Your task to perform on an android device: Open eBay Image 0: 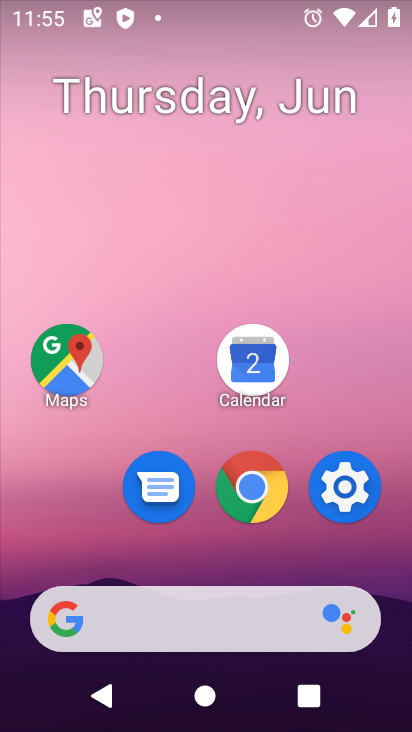
Step 0: drag from (275, 646) to (256, 0)
Your task to perform on an android device: Open eBay Image 1: 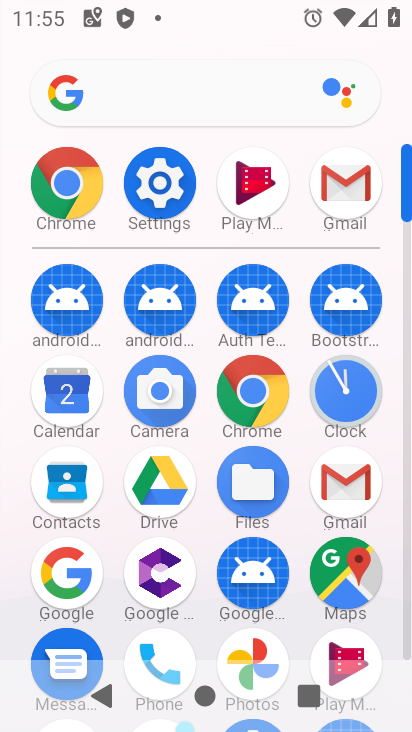
Step 1: click (78, 205)
Your task to perform on an android device: Open eBay Image 2: 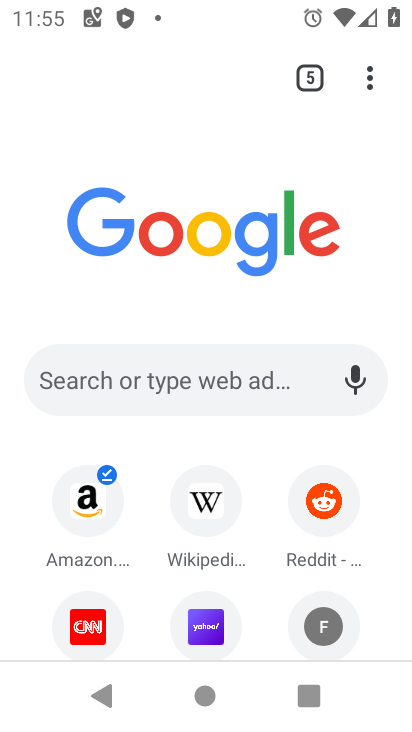
Step 2: click (148, 393)
Your task to perform on an android device: Open eBay Image 3: 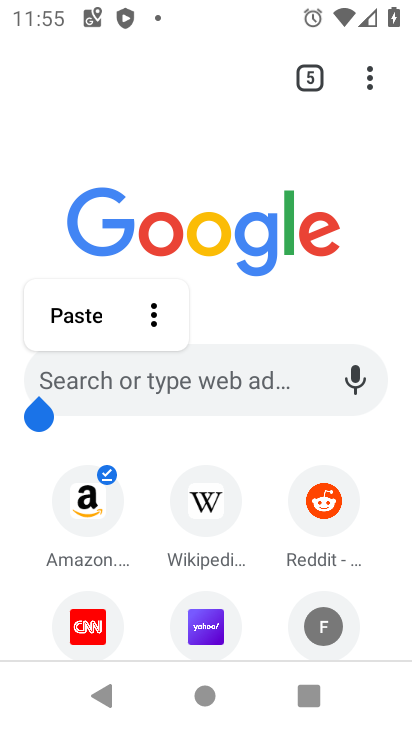
Step 3: click (160, 350)
Your task to perform on an android device: Open eBay Image 4: 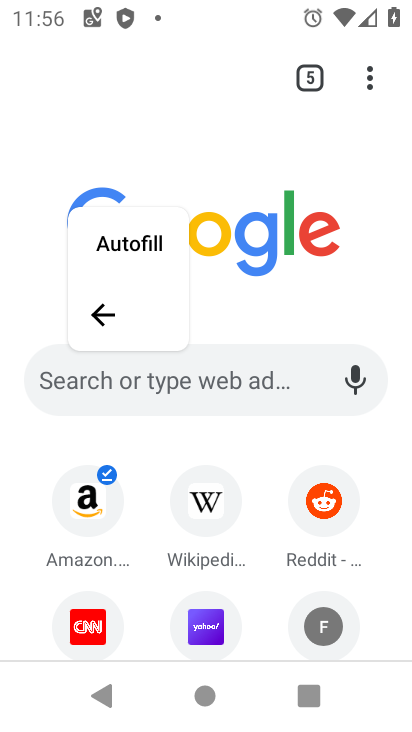
Step 4: click (126, 375)
Your task to perform on an android device: Open eBay Image 5: 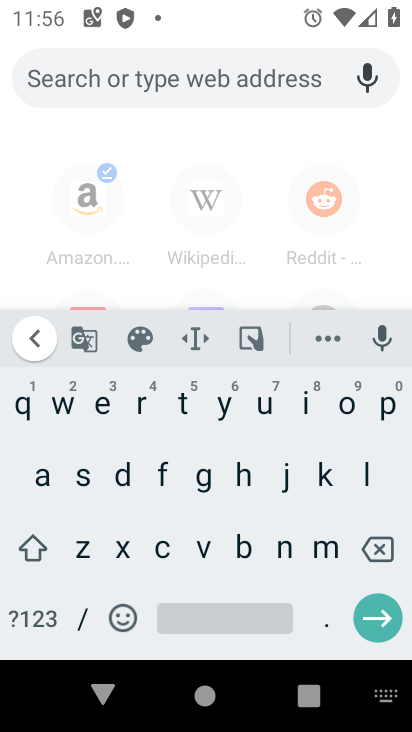
Step 5: click (97, 401)
Your task to perform on an android device: Open eBay Image 6: 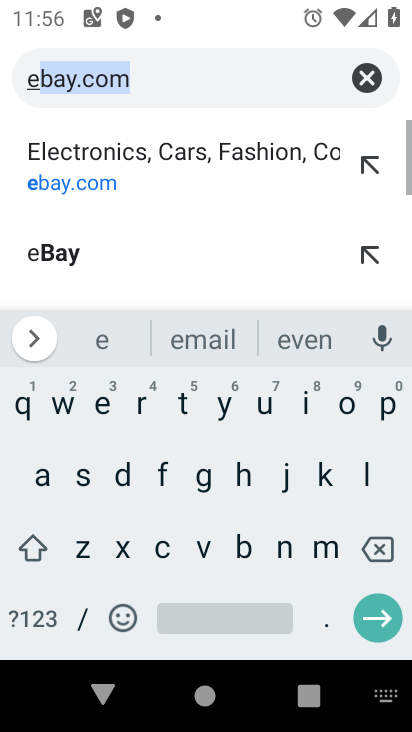
Step 6: click (80, 274)
Your task to perform on an android device: Open eBay Image 7: 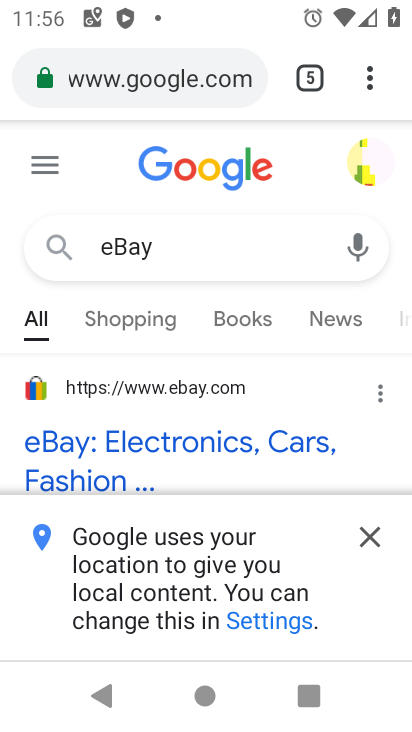
Step 7: click (91, 451)
Your task to perform on an android device: Open eBay Image 8: 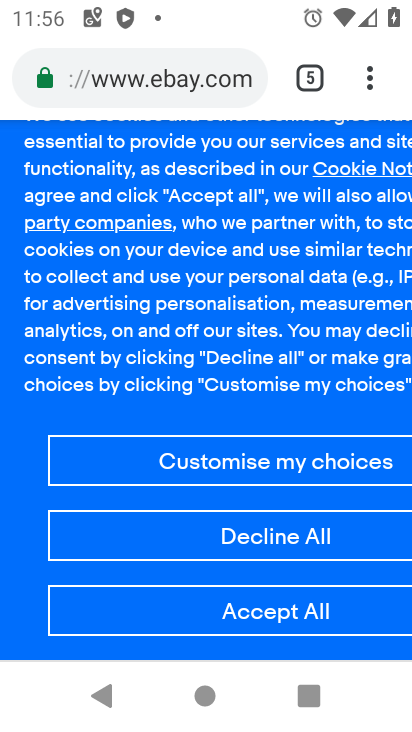
Step 8: task complete